Your task to perform on an android device: check battery use Image 0: 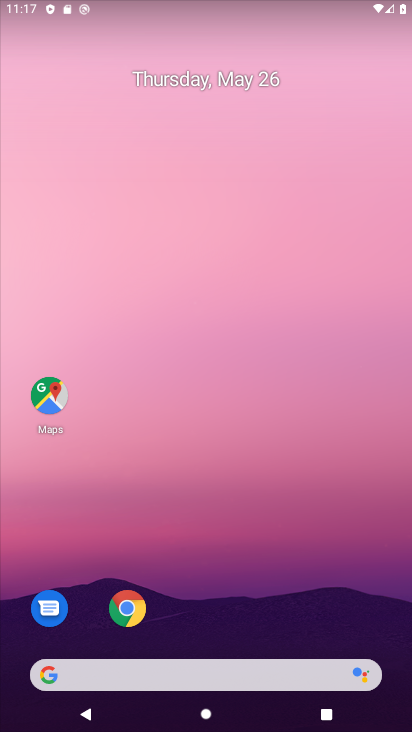
Step 0: drag from (282, 567) to (194, 2)
Your task to perform on an android device: check battery use Image 1: 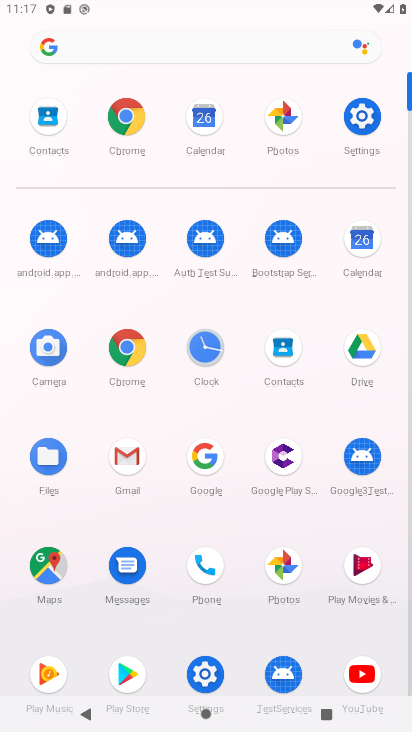
Step 1: click (350, 121)
Your task to perform on an android device: check battery use Image 2: 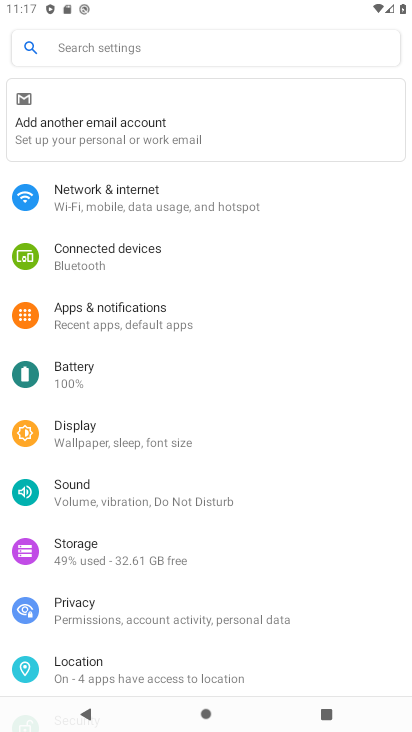
Step 2: drag from (245, 616) to (306, 194)
Your task to perform on an android device: check battery use Image 3: 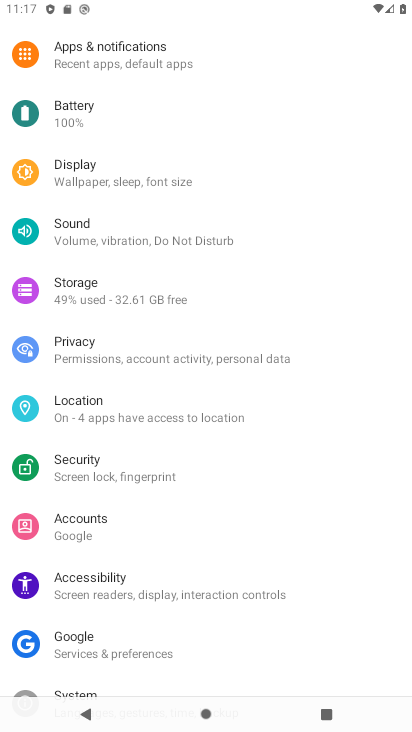
Step 3: click (94, 125)
Your task to perform on an android device: check battery use Image 4: 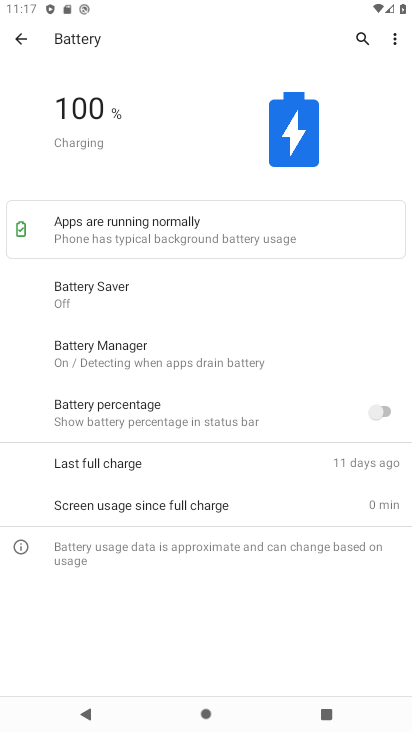
Step 4: click (393, 30)
Your task to perform on an android device: check battery use Image 5: 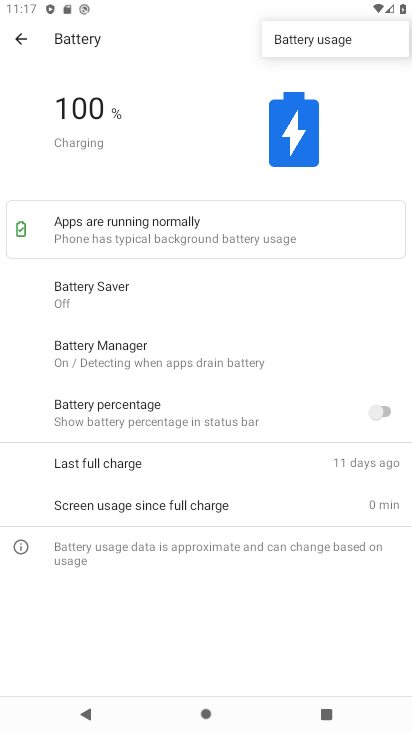
Step 5: click (287, 28)
Your task to perform on an android device: check battery use Image 6: 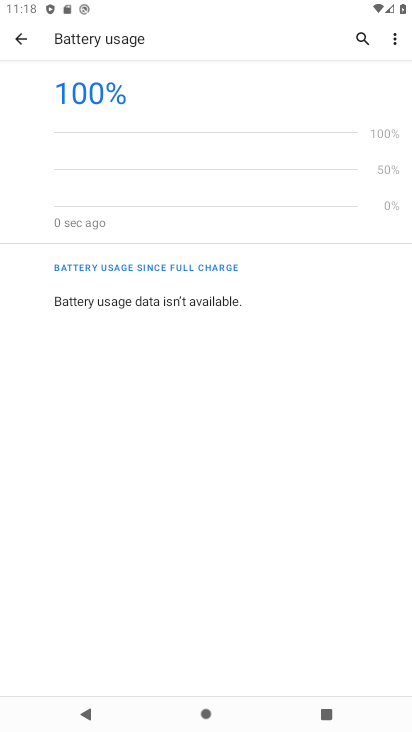
Step 6: task complete